Your task to perform on an android device: Open notification settings Image 0: 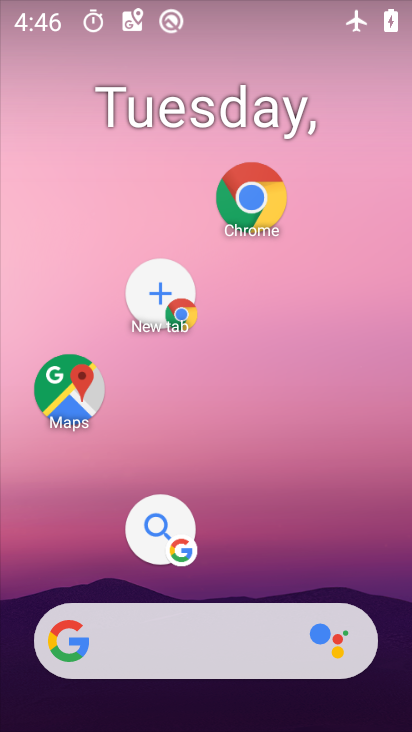
Step 0: drag from (191, 606) to (324, 325)
Your task to perform on an android device: Open notification settings Image 1: 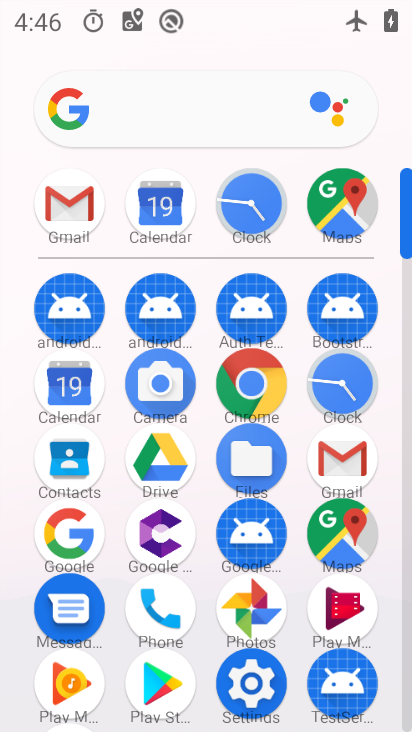
Step 1: click (261, 671)
Your task to perform on an android device: Open notification settings Image 2: 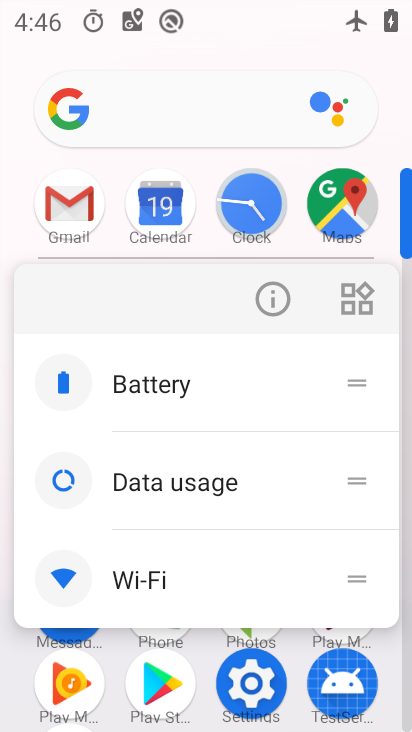
Step 2: press back button
Your task to perform on an android device: Open notification settings Image 3: 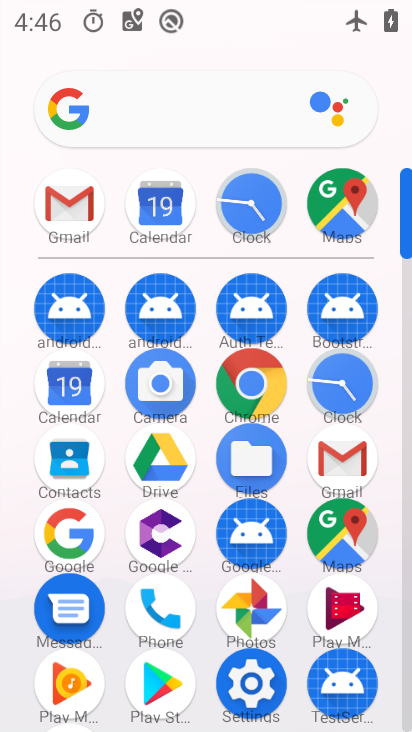
Step 3: click (249, 666)
Your task to perform on an android device: Open notification settings Image 4: 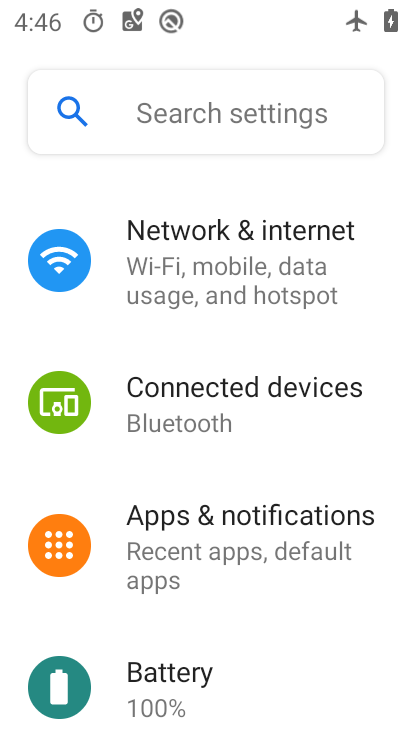
Step 4: click (243, 539)
Your task to perform on an android device: Open notification settings Image 5: 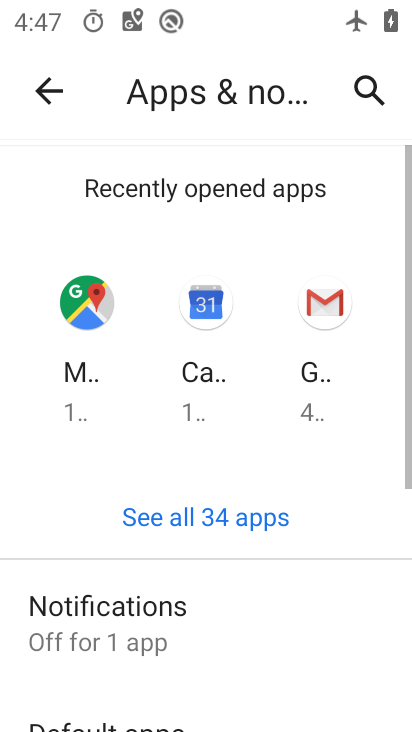
Step 5: drag from (237, 658) to (291, 285)
Your task to perform on an android device: Open notification settings Image 6: 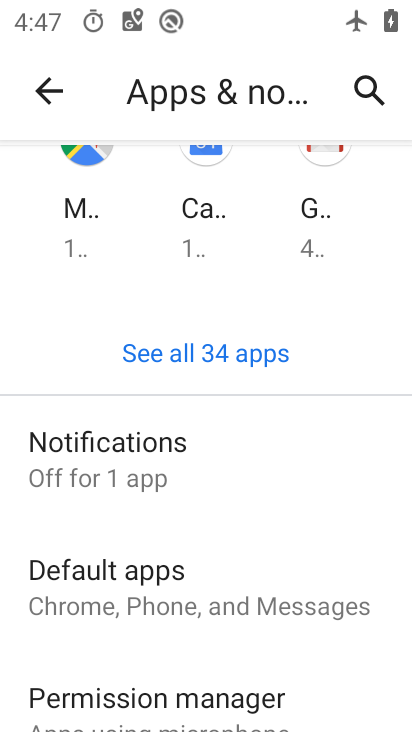
Step 6: drag from (209, 659) to (299, 383)
Your task to perform on an android device: Open notification settings Image 7: 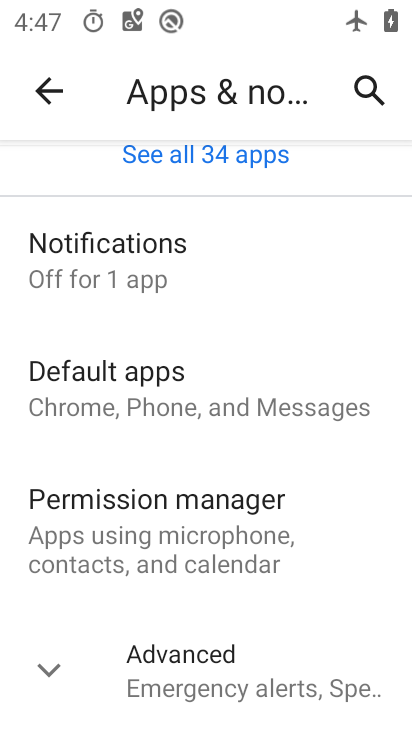
Step 7: click (159, 687)
Your task to perform on an android device: Open notification settings Image 8: 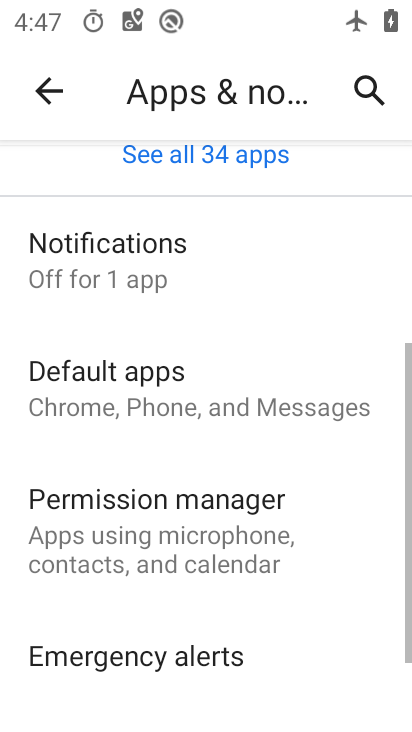
Step 8: task complete